Your task to perform on an android device: Go to Maps Image 0: 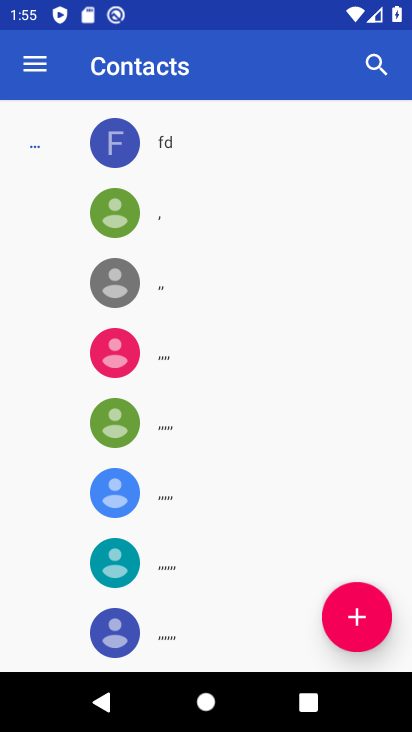
Step 0: drag from (243, 563) to (254, 166)
Your task to perform on an android device: Go to Maps Image 1: 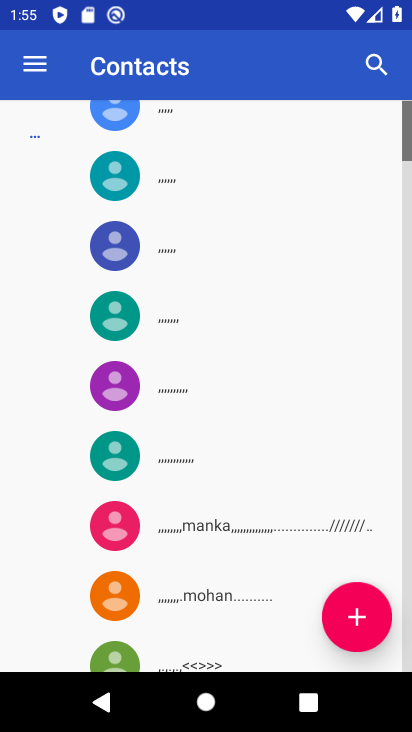
Step 1: press home button
Your task to perform on an android device: Go to Maps Image 2: 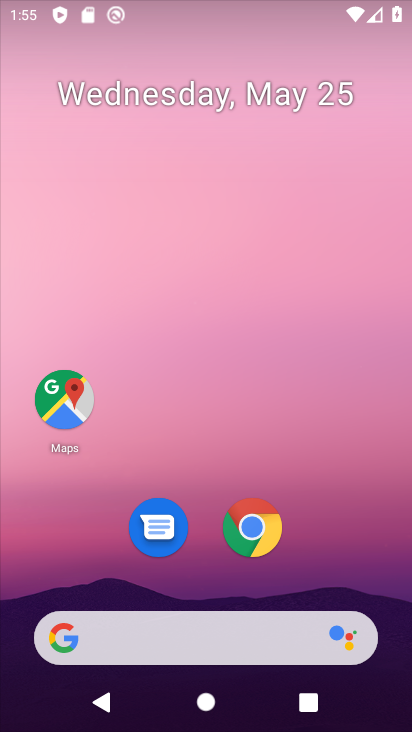
Step 2: drag from (243, 579) to (226, 195)
Your task to perform on an android device: Go to Maps Image 3: 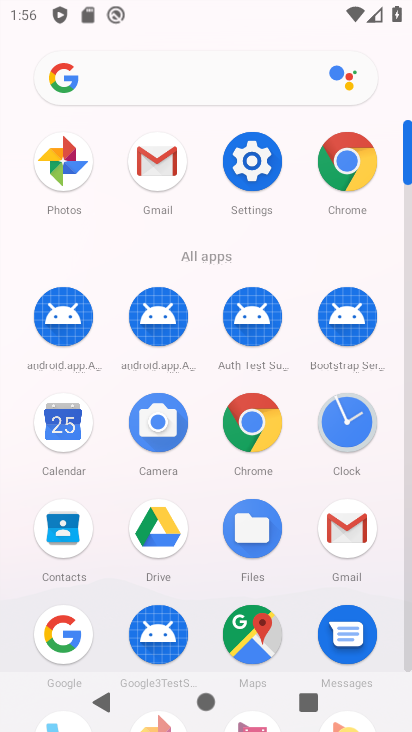
Step 3: click (237, 648)
Your task to perform on an android device: Go to Maps Image 4: 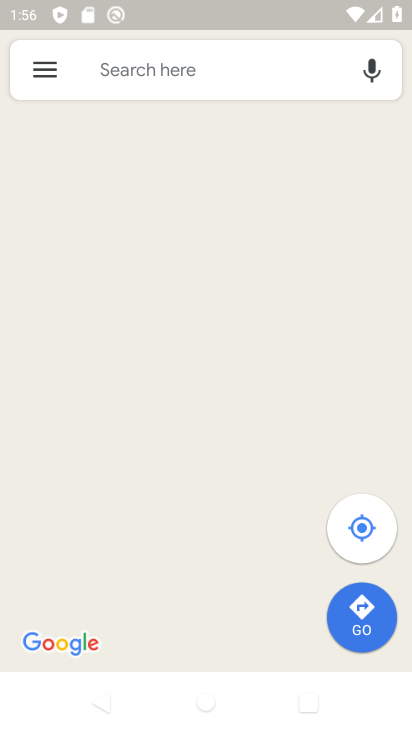
Step 4: task complete